Your task to perform on an android device: change the clock display to digital Image 0: 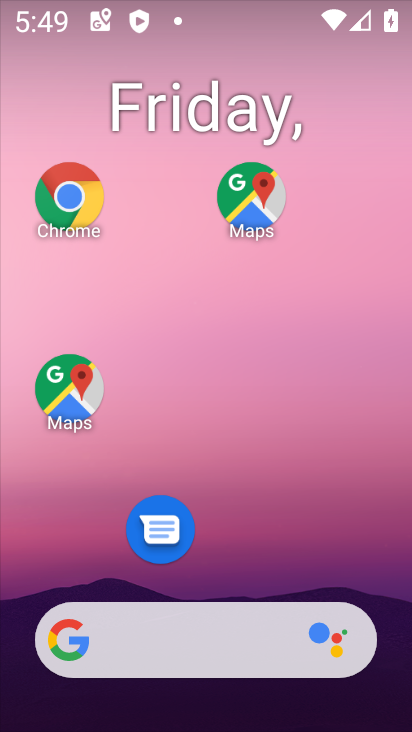
Step 0: drag from (231, 547) to (271, 277)
Your task to perform on an android device: change the clock display to digital Image 1: 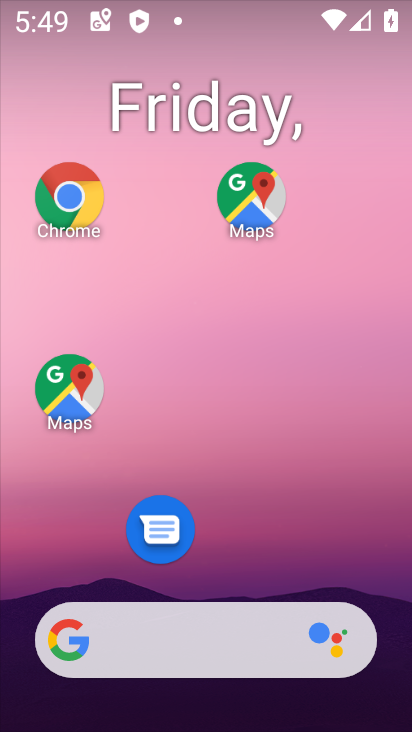
Step 1: drag from (245, 516) to (300, 97)
Your task to perform on an android device: change the clock display to digital Image 2: 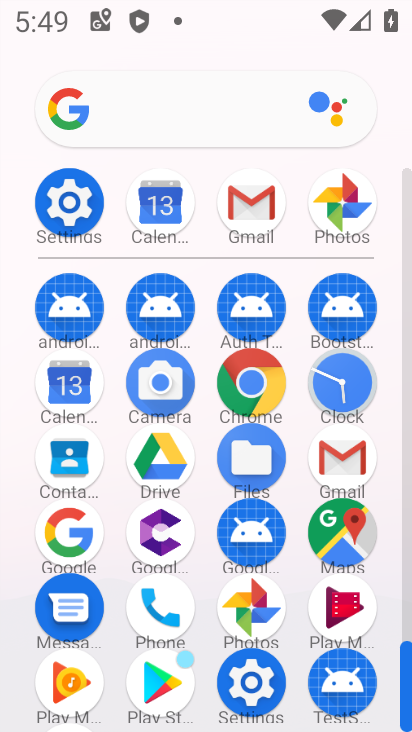
Step 2: click (342, 398)
Your task to perform on an android device: change the clock display to digital Image 3: 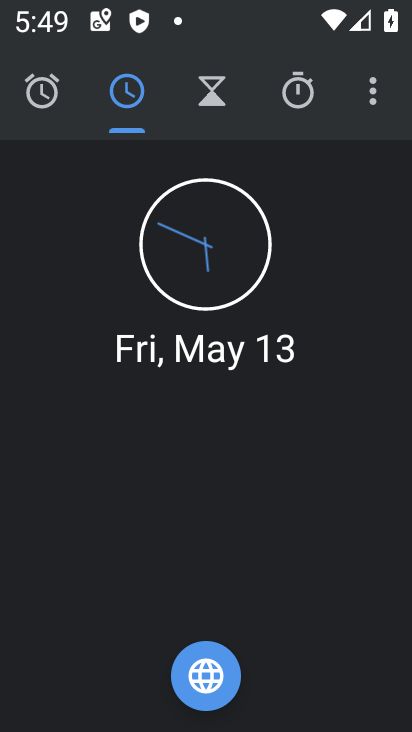
Step 3: click (378, 98)
Your task to perform on an android device: change the clock display to digital Image 4: 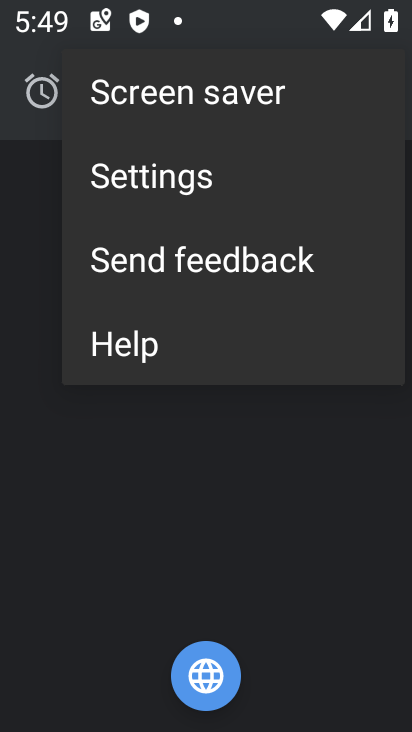
Step 4: click (183, 189)
Your task to perform on an android device: change the clock display to digital Image 5: 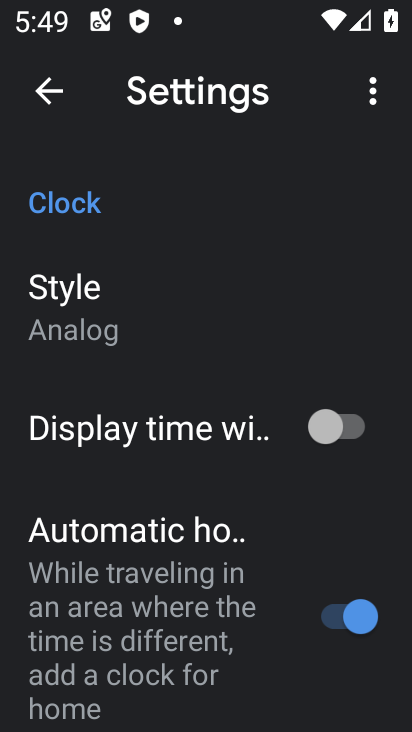
Step 5: click (97, 324)
Your task to perform on an android device: change the clock display to digital Image 6: 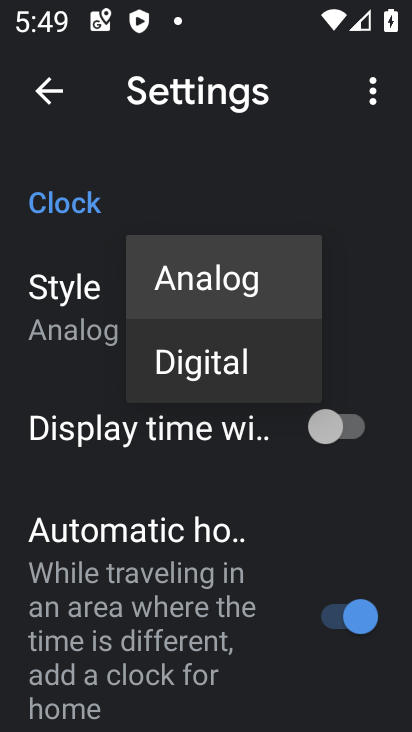
Step 6: click (227, 360)
Your task to perform on an android device: change the clock display to digital Image 7: 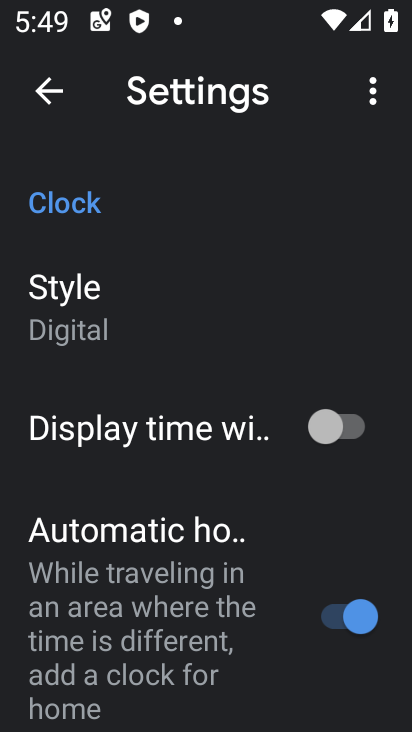
Step 7: task complete